Your task to perform on an android device: Open calendar and show me the first week of next month Image 0: 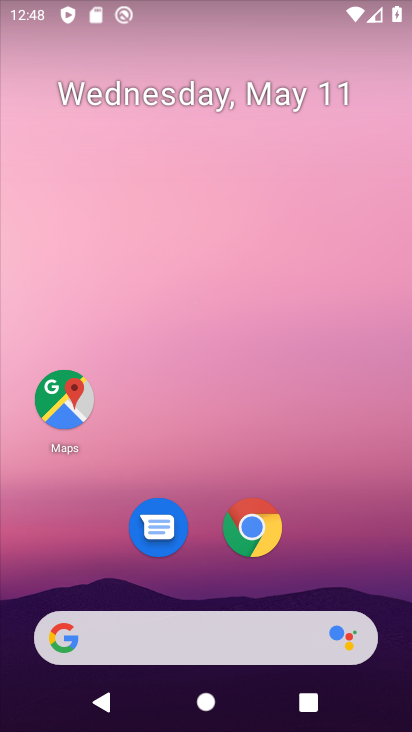
Step 0: drag from (324, 521) to (206, 4)
Your task to perform on an android device: Open calendar and show me the first week of next month Image 1: 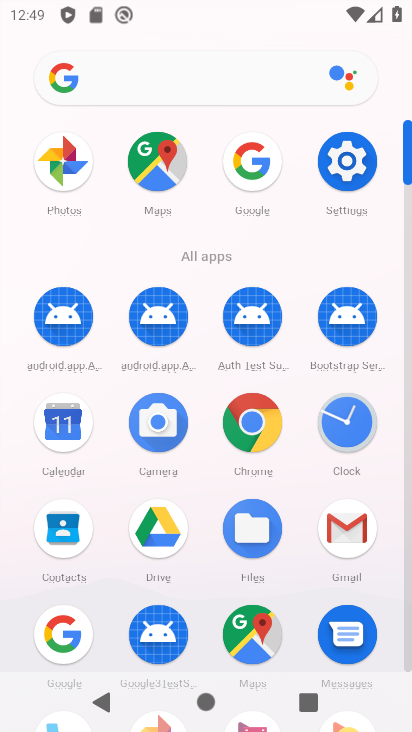
Step 1: click (50, 425)
Your task to perform on an android device: Open calendar and show me the first week of next month Image 2: 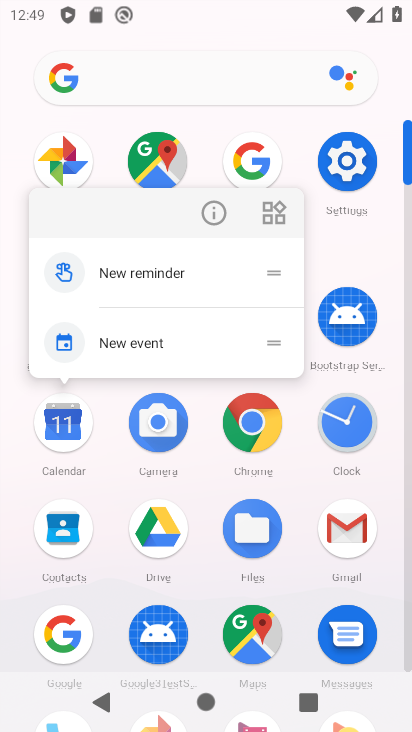
Step 2: click (66, 428)
Your task to perform on an android device: Open calendar and show me the first week of next month Image 3: 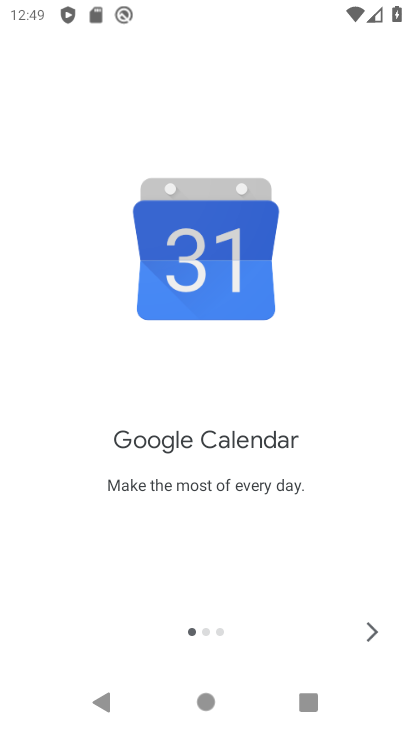
Step 3: click (369, 636)
Your task to perform on an android device: Open calendar and show me the first week of next month Image 4: 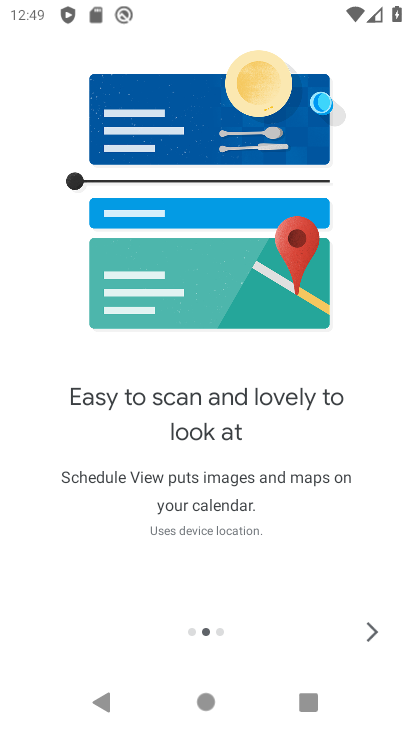
Step 4: click (369, 636)
Your task to perform on an android device: Open calendar and show me the first week of next month Image 5: 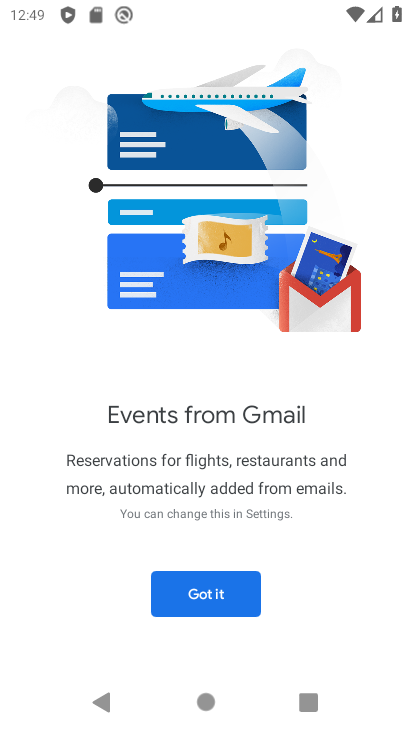
Step 5: click (203, 591)
Your task to perform on an android device: Open calendar and show me the first week of next month Image 6: 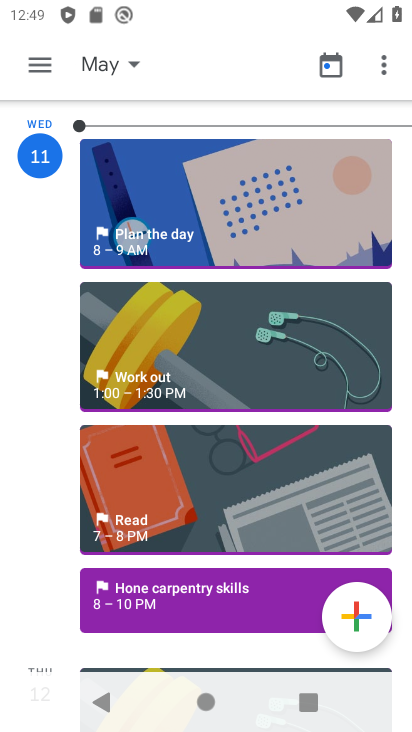
Step 6: click (27, 68)
Your task to perform on an android device: Open calendar and show me the first week of next month Image 7: 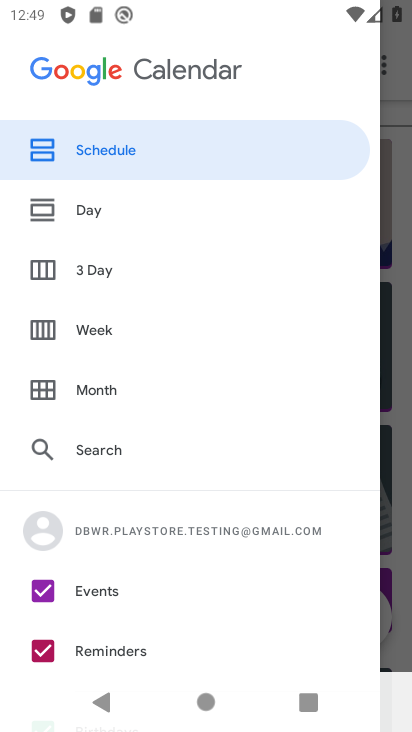
Step 7: click (106, 326)
Your task to perform on an android device: Open calendar and show me the first week of next month Image 8: 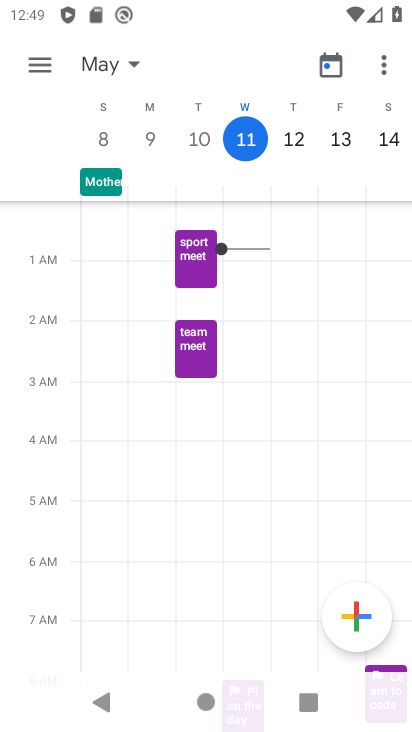
Step 8: task complete